Your task to perform on an android device: Go to internet settings Image 0: 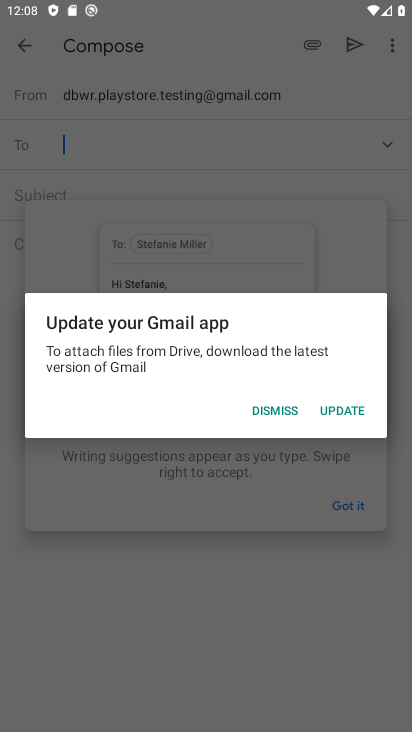
Step 0: press home button
Your task to perform on an android device: Go to internet settings Image 1: 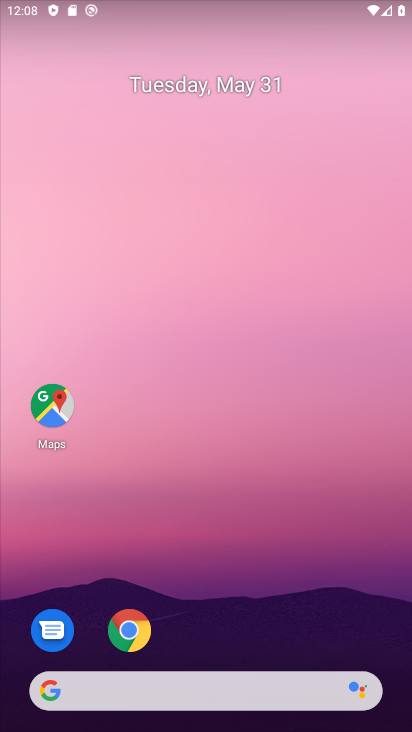
Step 1: drag from (197, 652) to (290, 177)
Your task to perform on an android device: Go to internet settings Image 2: 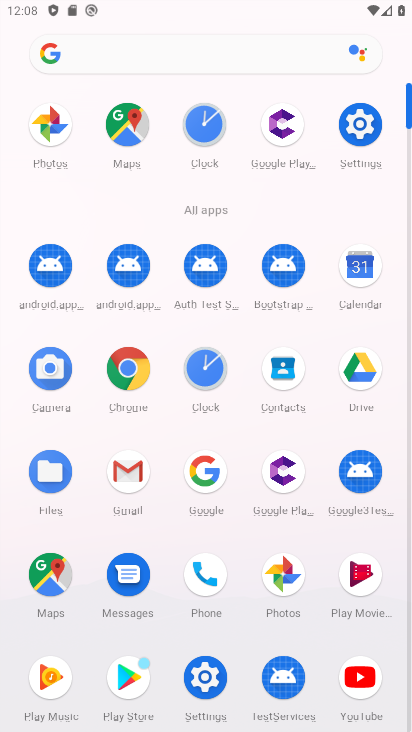
Step 2: click (360, 122)
Your task to perform on an android device: Go to internet settings Image 3: 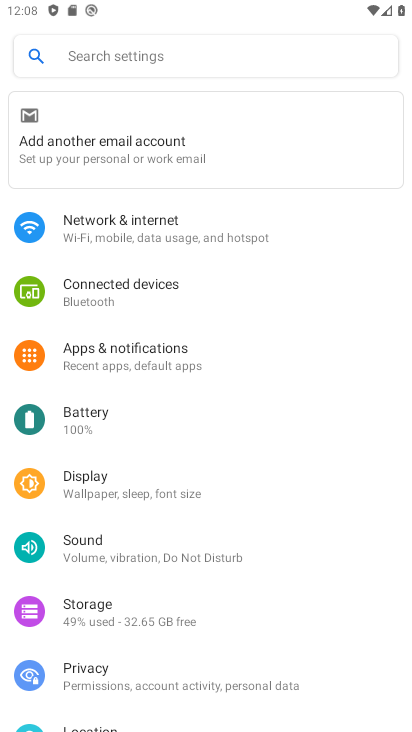
Step 3: click (178, 241)
Your task to perform on an android device: Go to internet settings Image 4: 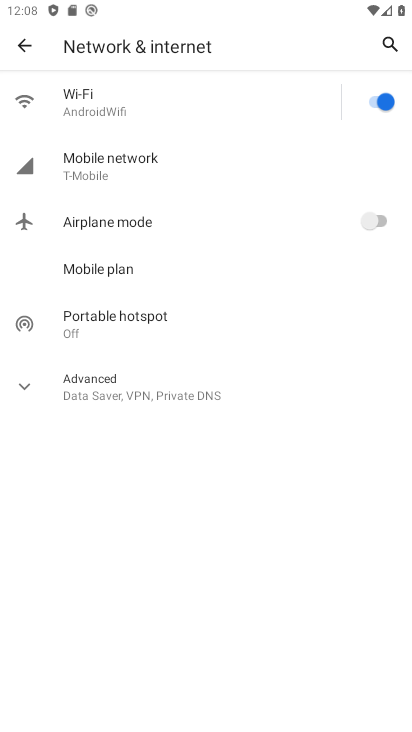
Step 4: task complete